Your task to perform on an android device: Search for Mexican restaurants on Maps Image 0: 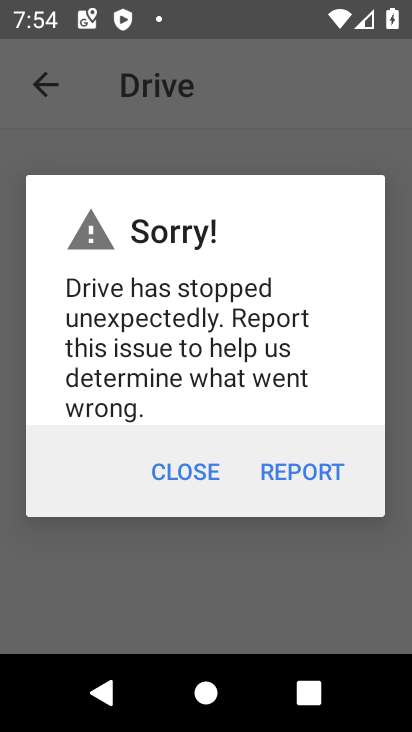
Step 0: press home button
Your task to perform on an android device: Search for Mexican restaurants on Maps Image 1: 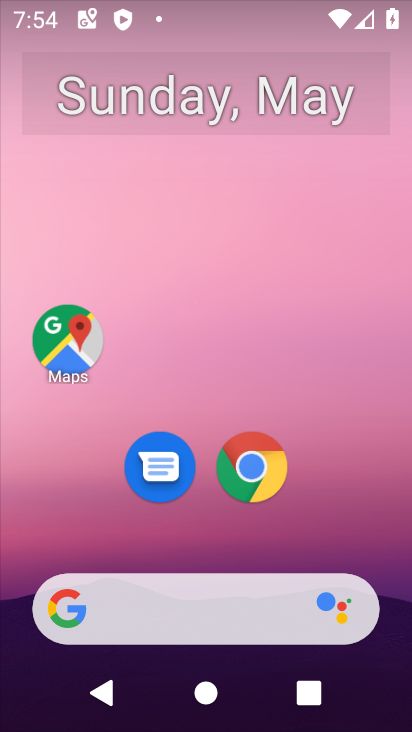
Step 1: click (34, 343)
Your task to perform on an android device: Search for Mexican restaurants on Maps Image 2: 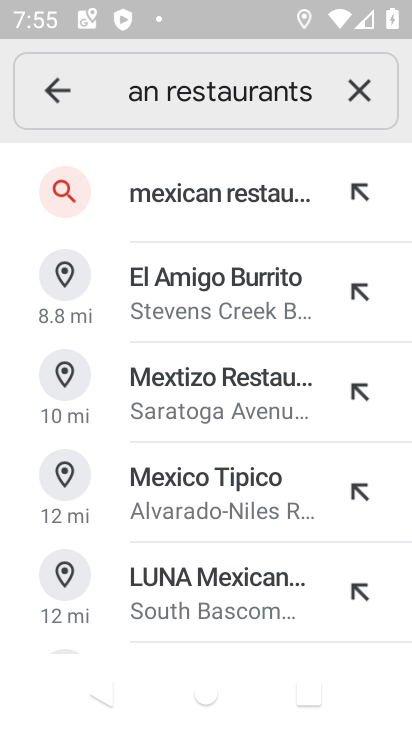
Step 2: click (259, 187)
Your task to perform on an android device: Search for Mexican restaurants on Maps Image 3: 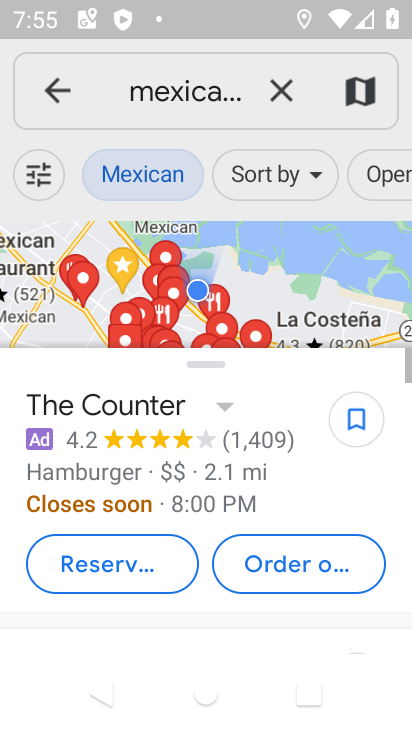
Step 3: task complete